Your task to perform on an android device: toggle javascript in the chrome app Image 0: 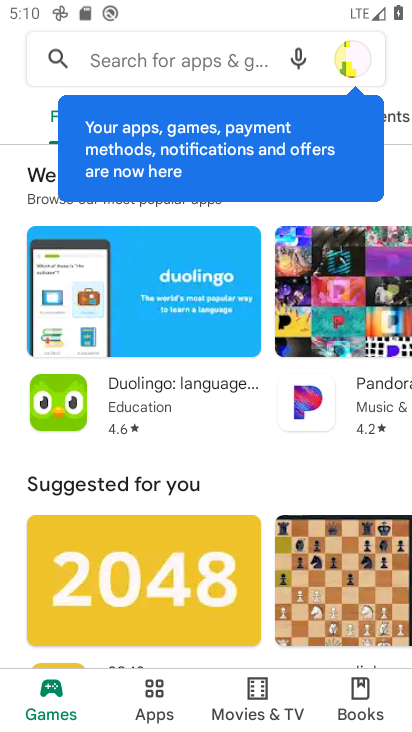
Step 0: press home button
Your task to perform on an android device: toggle javascript in the chrome app Image 1: 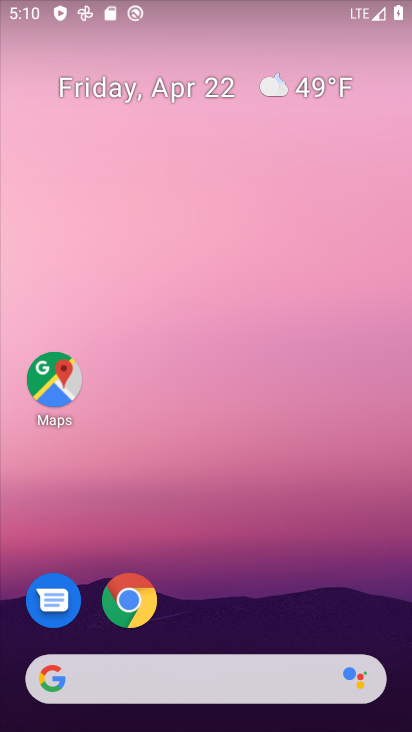
Step 1: click (130, 597)
Your task to perform on an android device: toggle javascript in the chrome app Image 2: 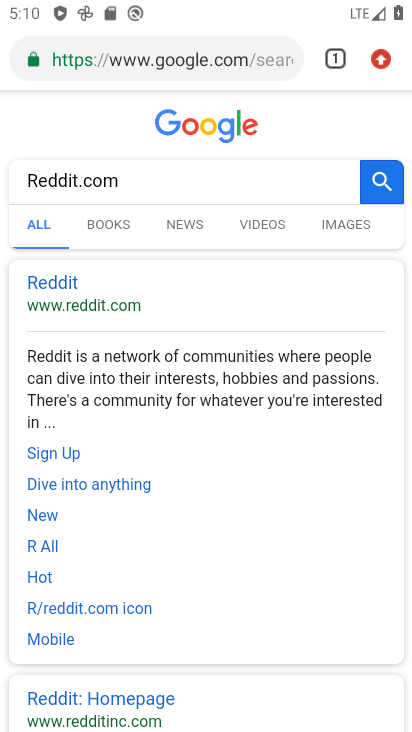
Step 2: click (381, 62)
Your task to perform on an android device: toggle javascript in the chrome app Image 3: 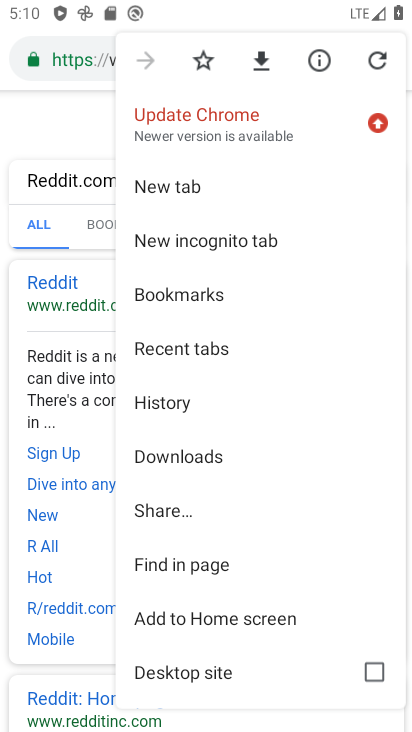
Step 3: drag from (222, 499) to (237, 391)
Your task to perform on an android device: toggle javascript in the chrome app Image 4: 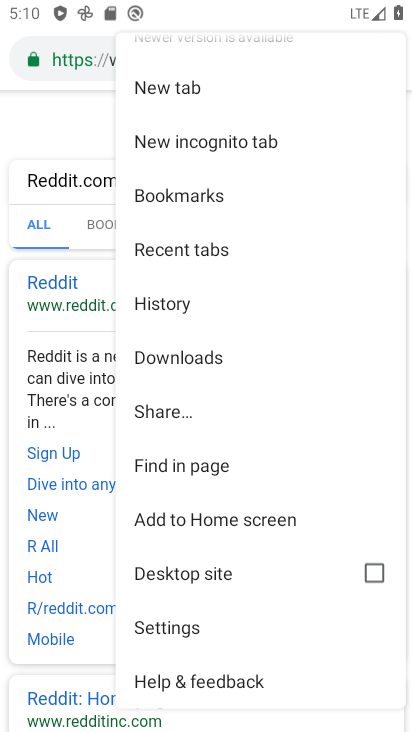
Step 4: drag from (217, 552) to (264, 409)
Your task to perform on an android device: toggle javascript in the chrome app Image 5: 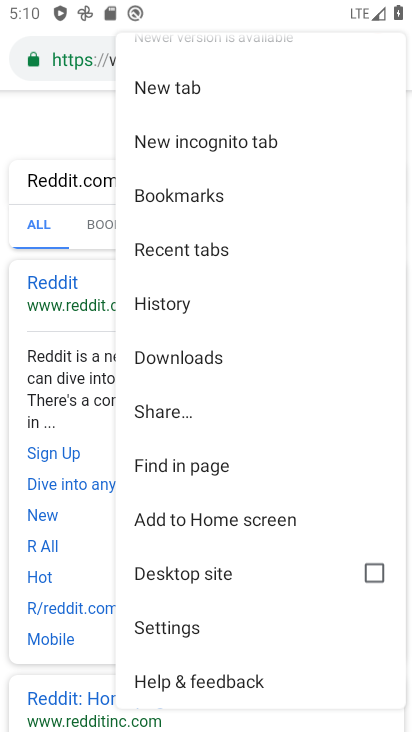
Step 5: click (183, 630)
Your task to perform on an android device: toggle javascript in the chrome app Image 6: 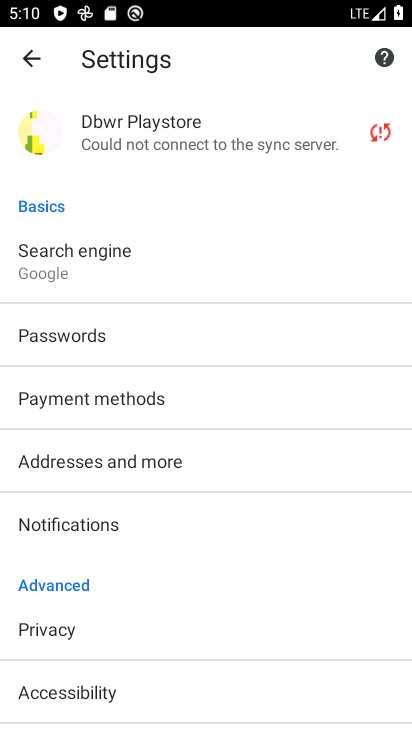
Step 6: drag from (170, 595) to (238, 403)
Your task to perform on an android device: toggle javascript in the chrome app Image 7: 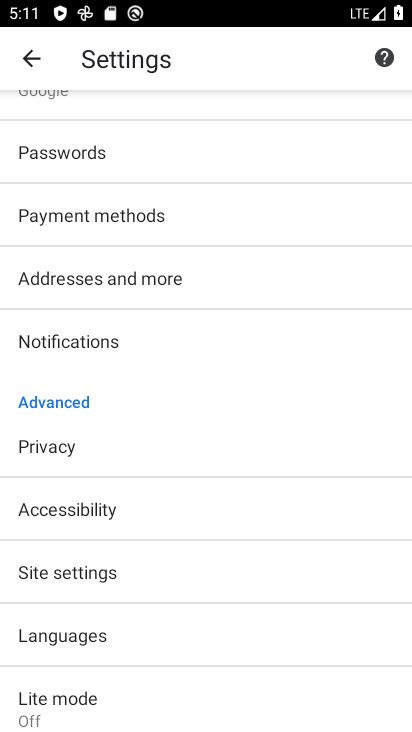
Step 7: click (104, 571)
Your task to perform on an android device: toggle javascript in the chrome app Image 8: 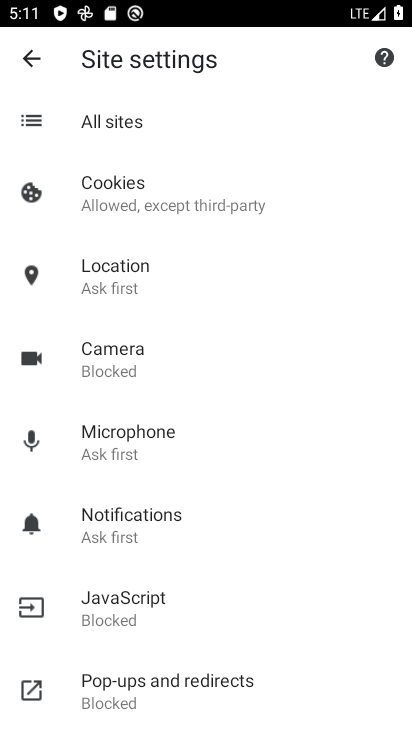
Step 8: drag from (214, 531) to (279, 410)
Your task to perform on an android device: toggle javascript in the chrome app Image 9: 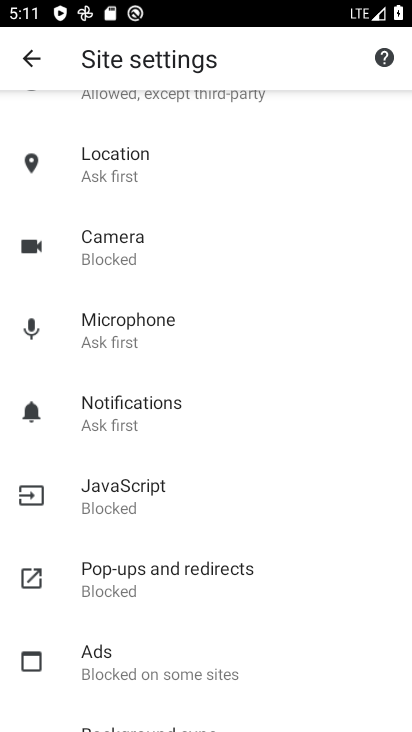
Step 9: click (159, 494)
Your task to perform on an android device: toggle javascript in the chrome app Image 10: 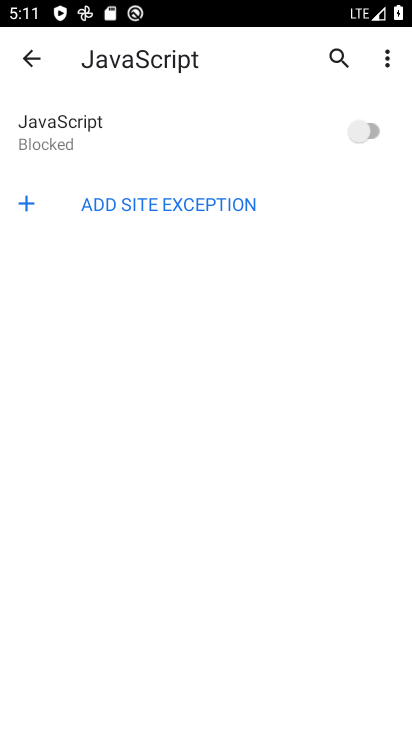
Step 10: click (369, 129)
Your task to perform on an android device: toggle javascript in the chrome app Image 11: 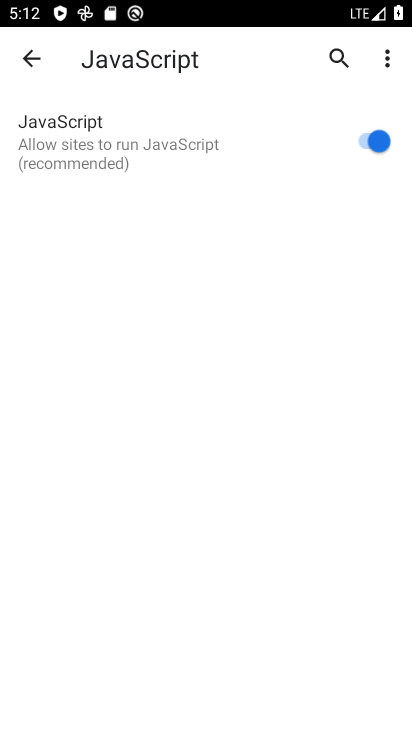
Step 11: task complete